Your task to perform on an android device: turn on airplane mode Image 0: 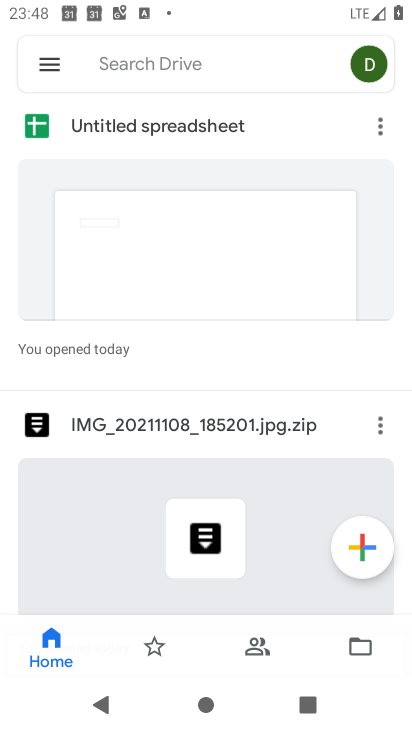
Step 0: press home button
Your task to perform on an android device: turn on airplane mode Image 1: 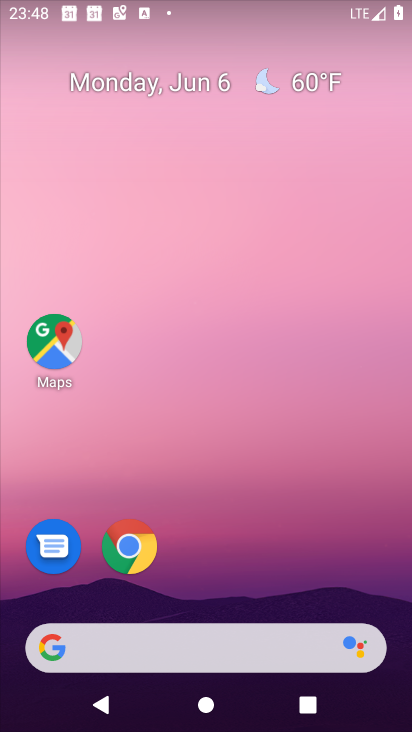
Step 1: drag from (356, 589) to (372, 82)
Your task to perform on an android device: turn on airplane mode Image 2: 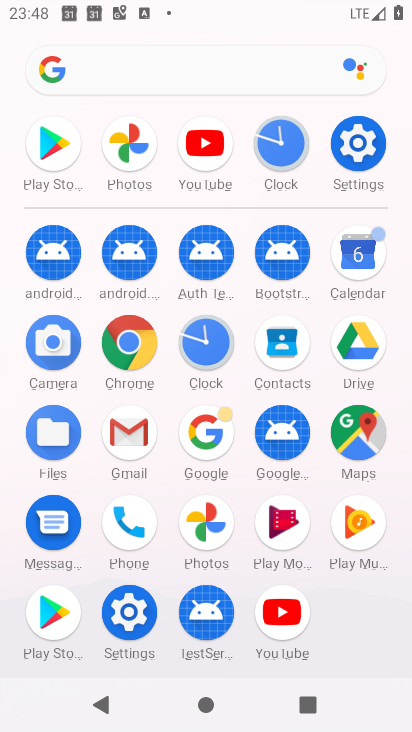
Step 2: click (131, 615)
Your task to perform on an android device: turn on airplane mode Image 3: 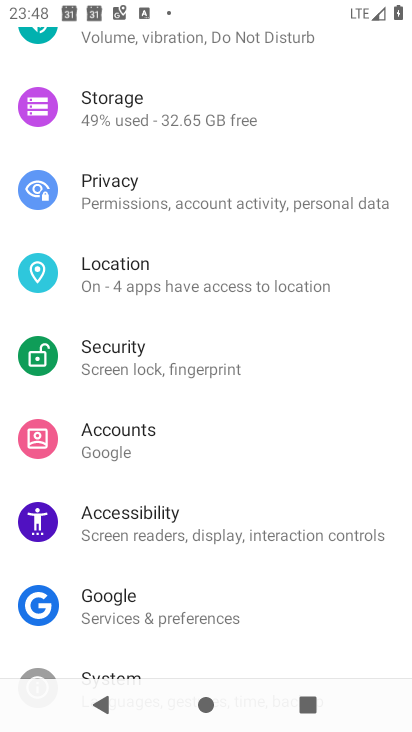
Step 3: drag from (287, 148) to (298, 482)
Your task to perform on an android device: turn on airplane mode Image 4: 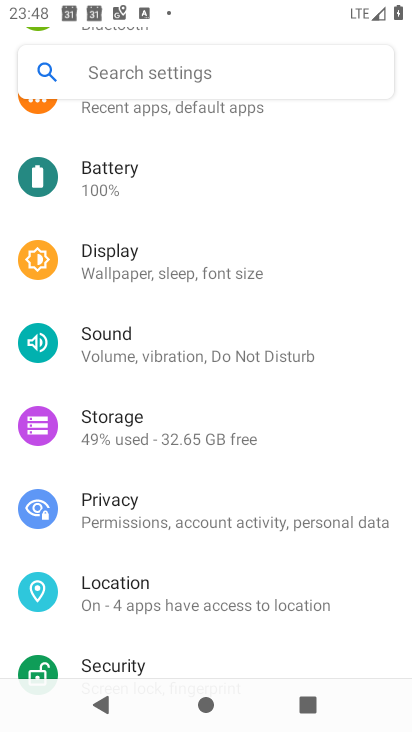
Step 4: drag from (356, 271) to (353, 544)
Your task to perform on an android device: turn on airplane mode Image 5: 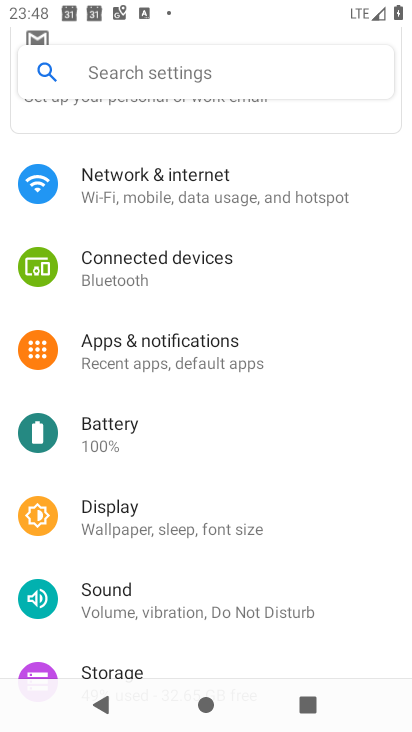
Step 5: drag from (385, 273) to (359, 490)
Your task to perform on an android device: turn on airplane mode Image 6: 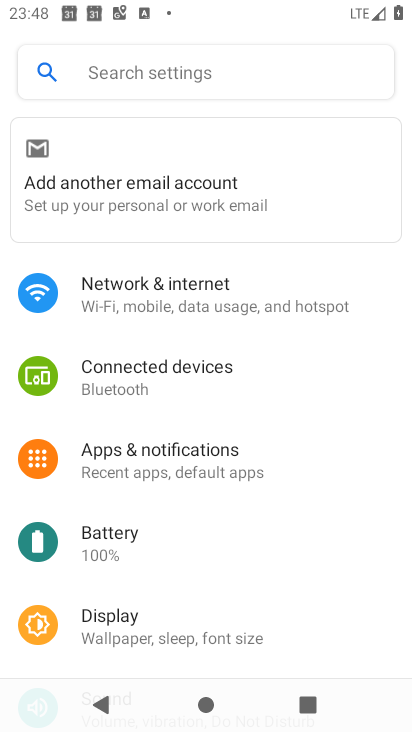
Step 6: click (144, 287)
Your task to perform on an android device: turn on airplane mode Image 7: 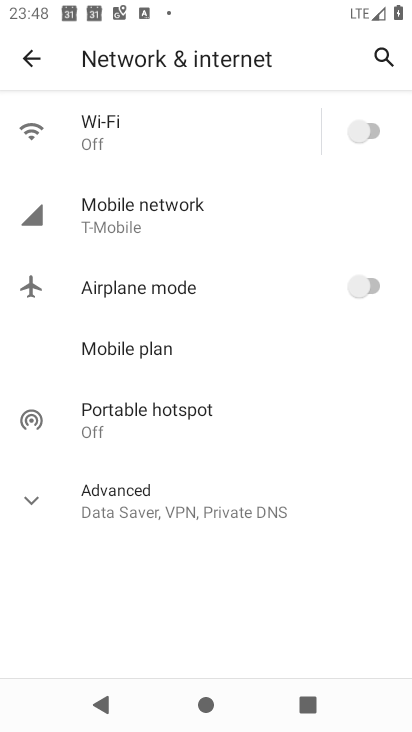
Step 7: click (371, 287)
Your task to perform on an android device: turn on airplane mode Image 8: 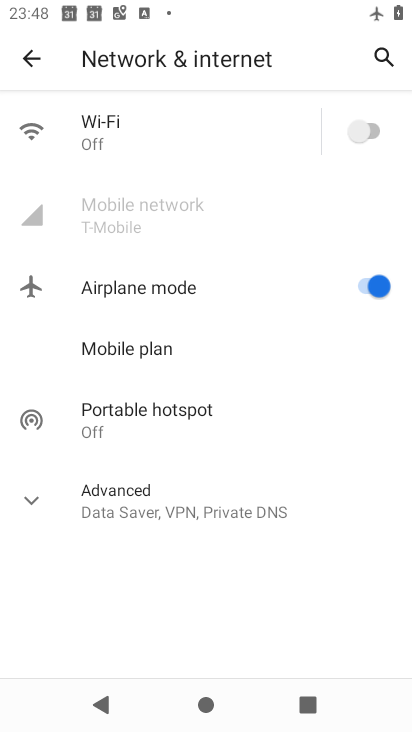
Step 8: task complete